Your task to perform on an android device: change timer sound Image 0: 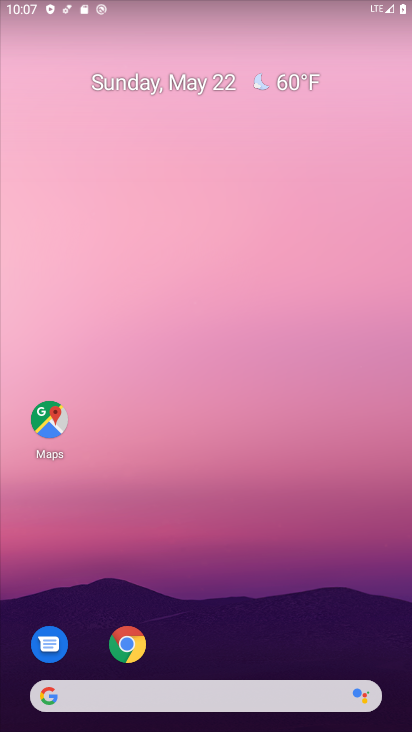
Step 0: drag from (245, 683) to (293, 297)
Your task to perform on an android device: change timer sound Image 1: 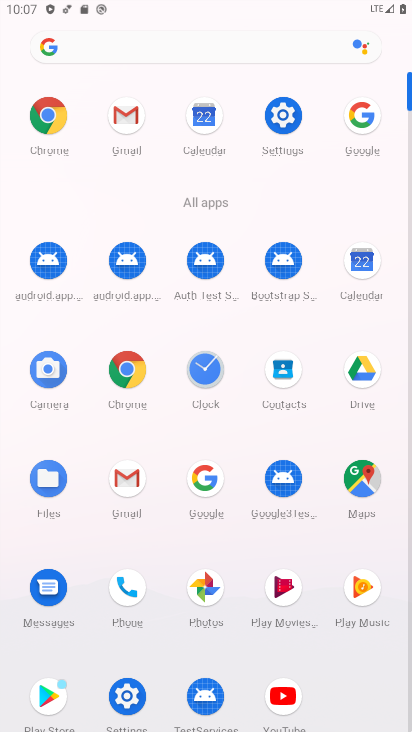
Step 1: click (200, 381)
Your task to perform on an android device: change timer sound Image 2: 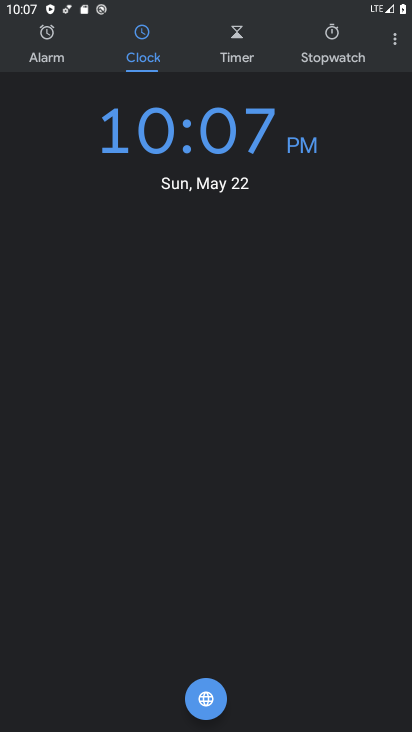
Step 2: click (397, 43)
Your task to perform on an android device: change timer sound Image 3: 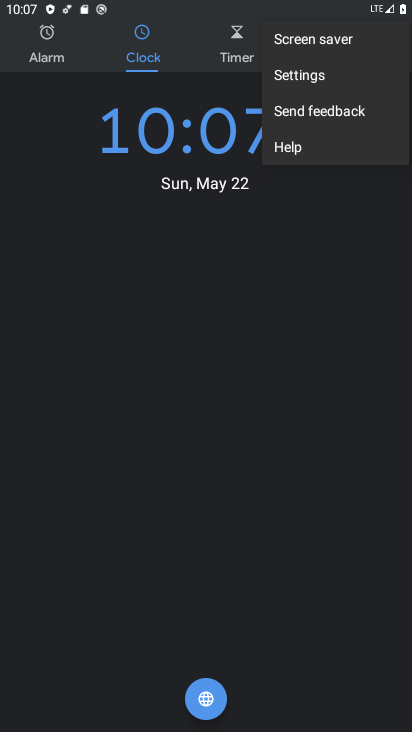
Step 3: click (291, 78)
Your task to perform on an android device: change timer sound Image 4: 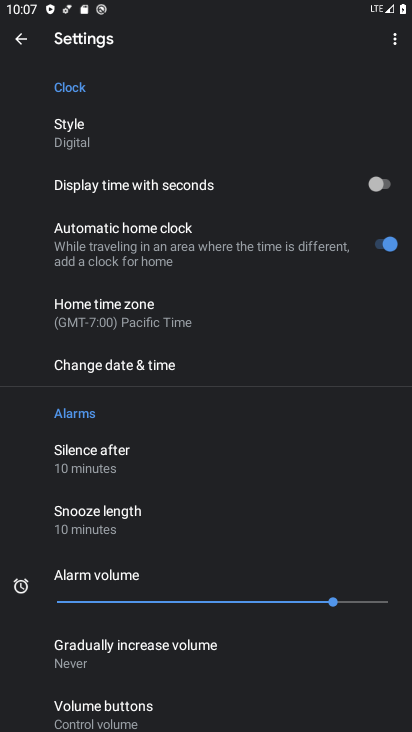
Step 4: drag from (186, 722) to (217, 415)
Your task to perform on an android device: change timer sound Image 5: 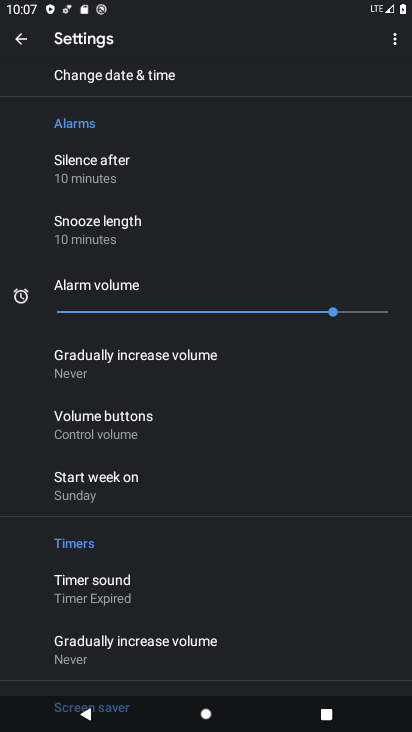
Step 5: drag from (224, 633) to (217, 327)
Your task to perform on an android device: change timer sound Image 6: 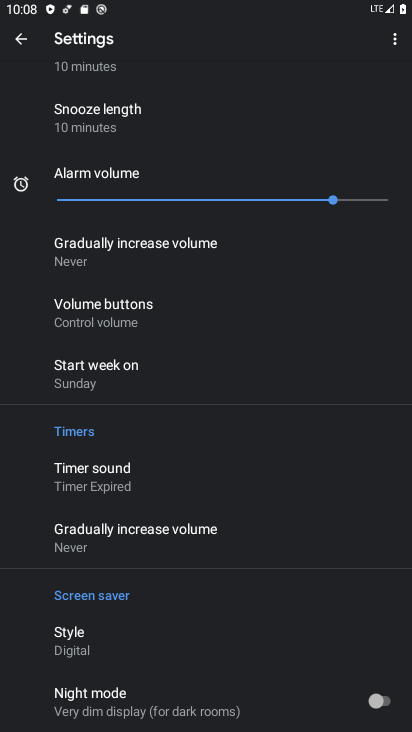
Step 6: click (112, 471)
Your task to perform on an android device: change timer sound Image 7: 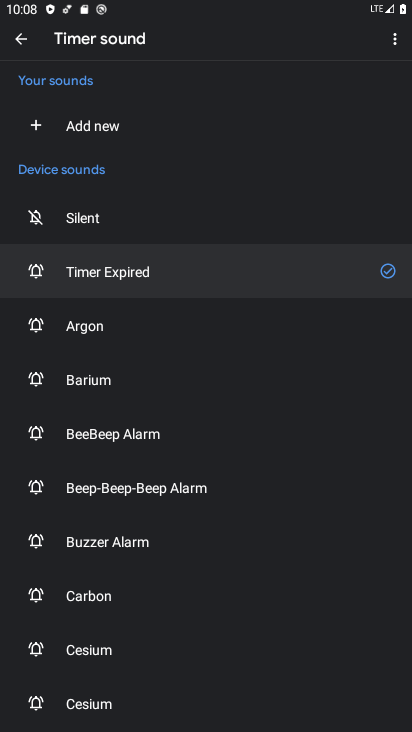
Step 7: click (77, 339)
Your task to perform on an android device: change timer sound Image 8: 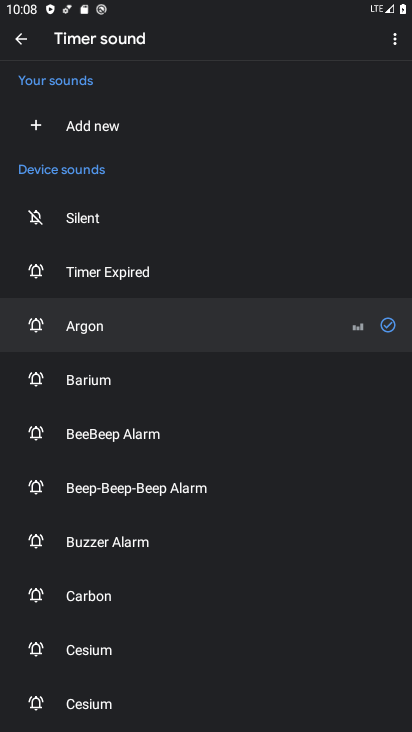
Step 8: task complete